Your task to perform on an android device: check battery use Image 0: 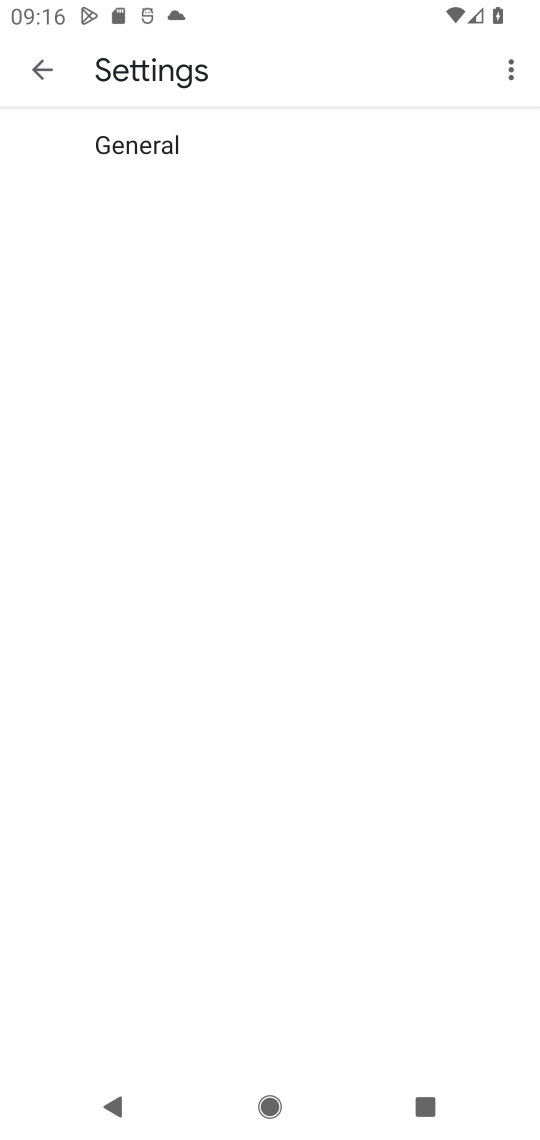
Step 0: press home button
Your task to perform on an android device: check battery use Image 1: 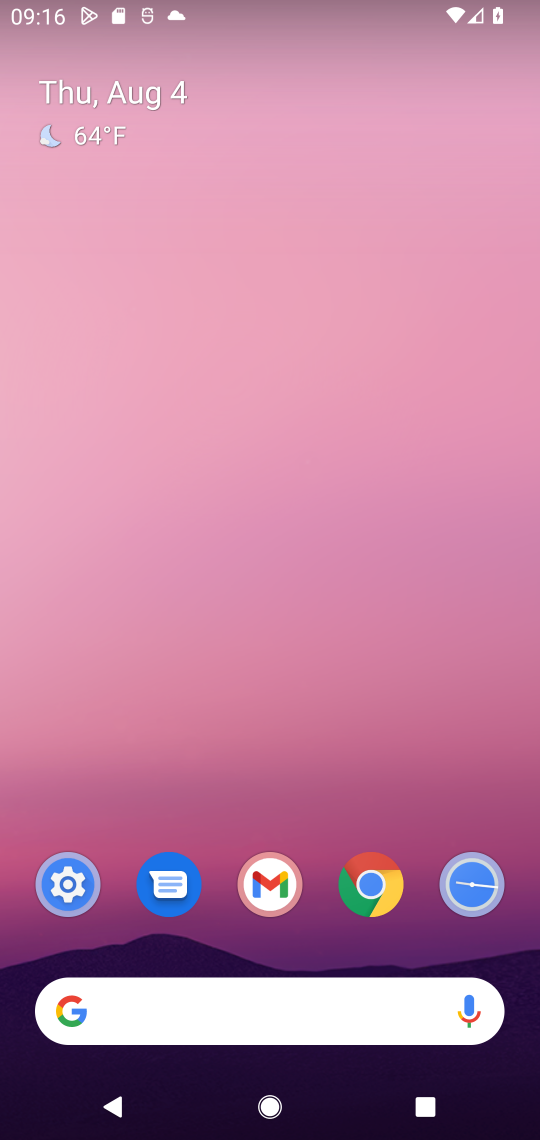
Step 1: click (67, 878)
Your task to perform on an android device: check battery use Image 2: 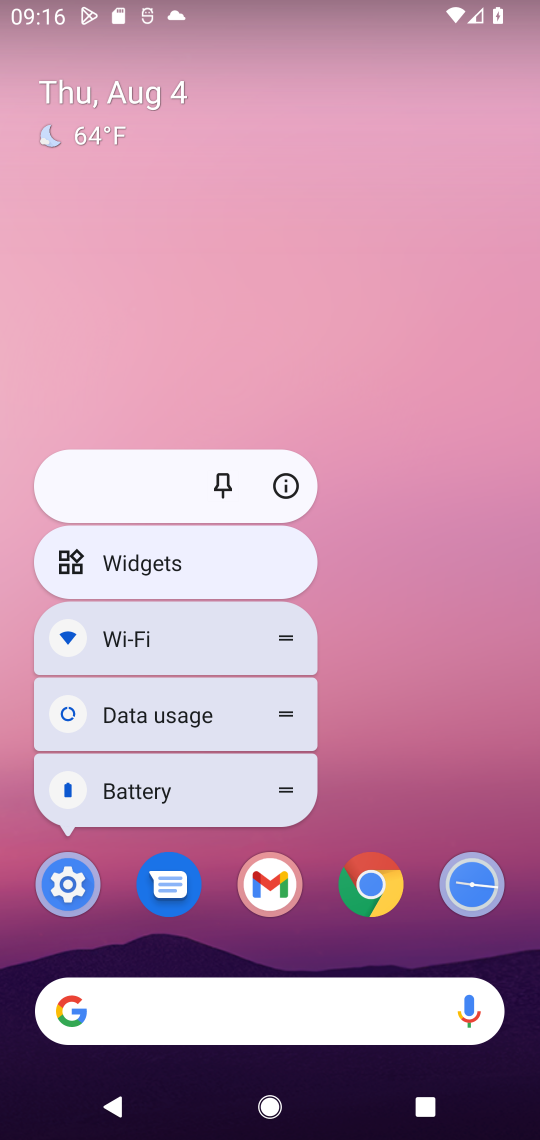
Step 2: click (67, 872)
Your task to perform on an android device: check battery use Image 3: 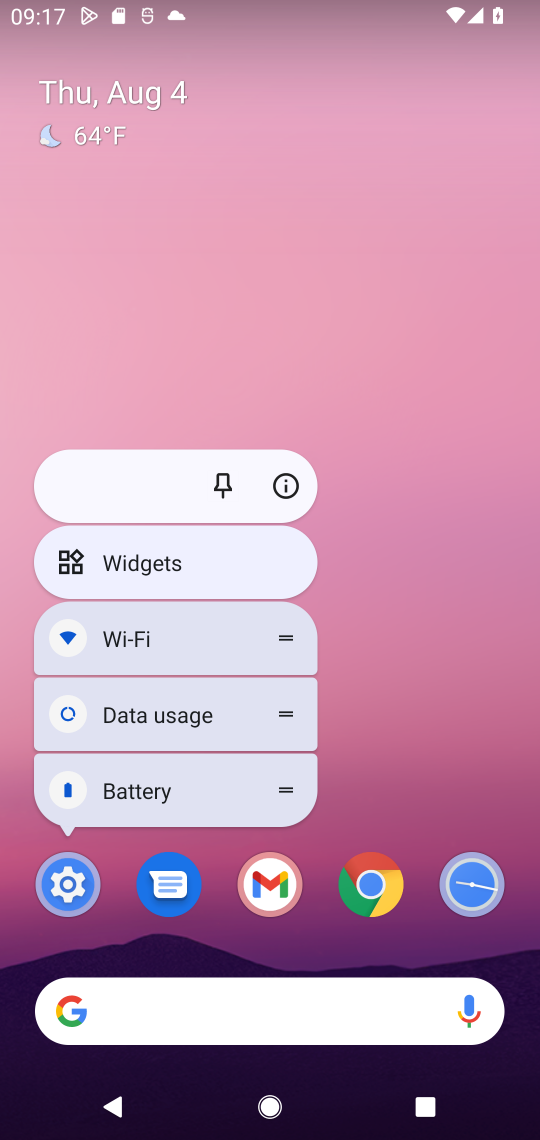
Step 3: click (55, 888)
Your task to perform on an android device: check battery use Image 4: 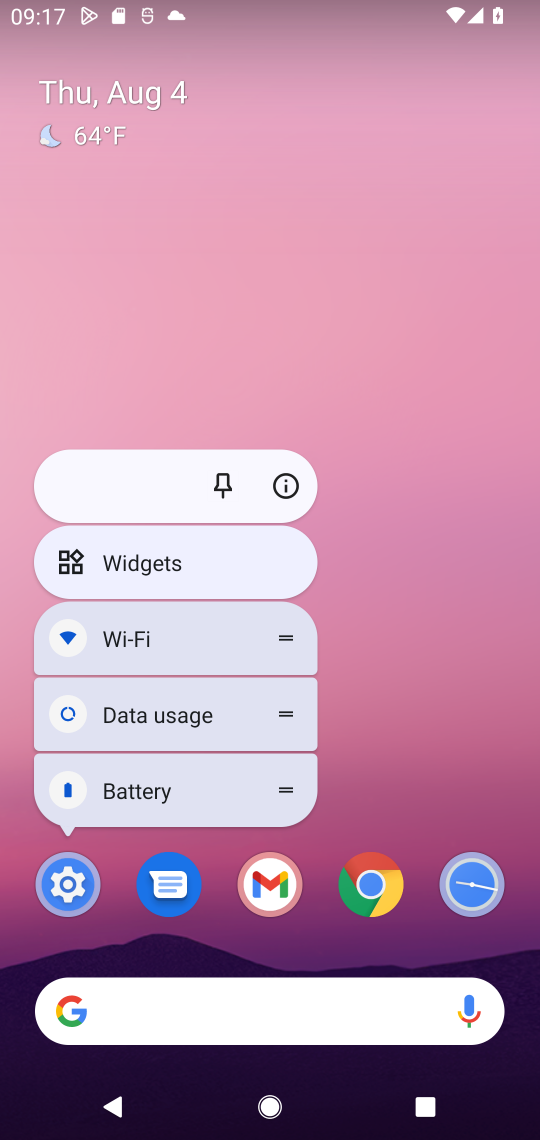
Step 4: click (59, 875)
Your task to perform on an android device: check battery use Image 5: 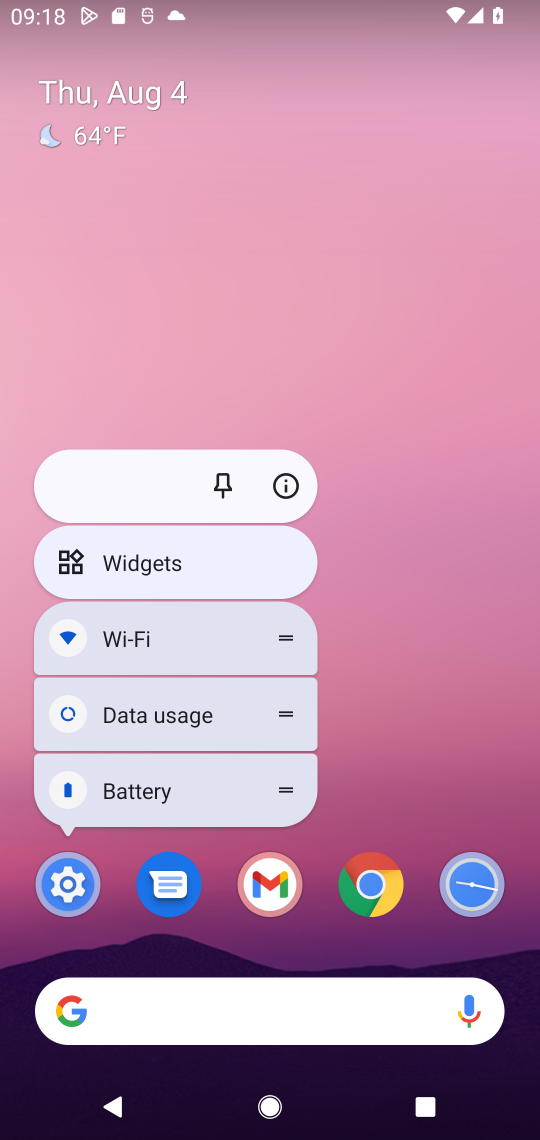
Step 5: click (57, 900)
Your task to perform on an android device: check battery use Image 6: 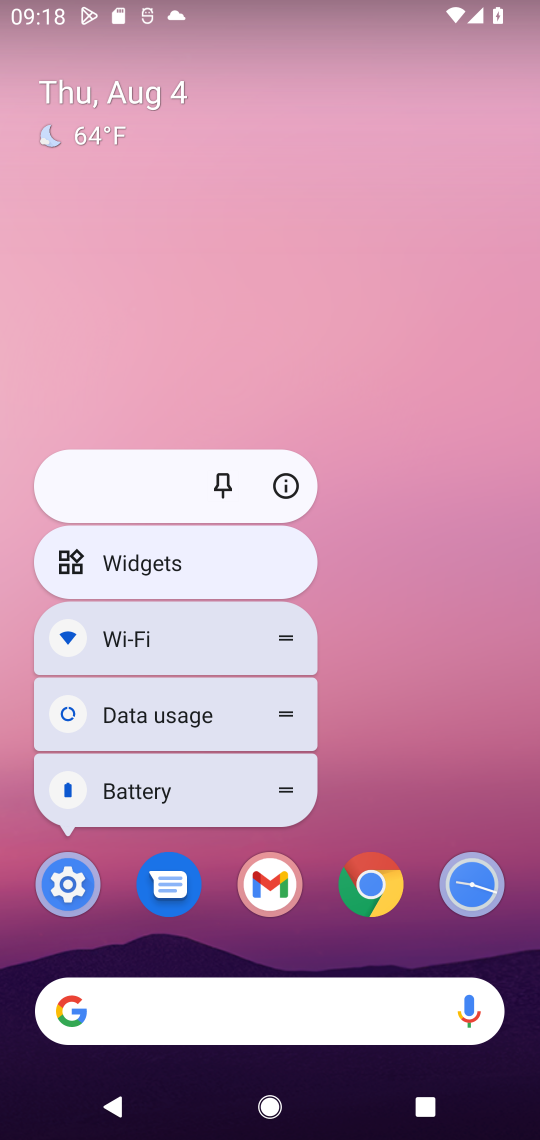
Step 6: click (57, 900)
Your task to perform on an android device: check battery use Image 7: 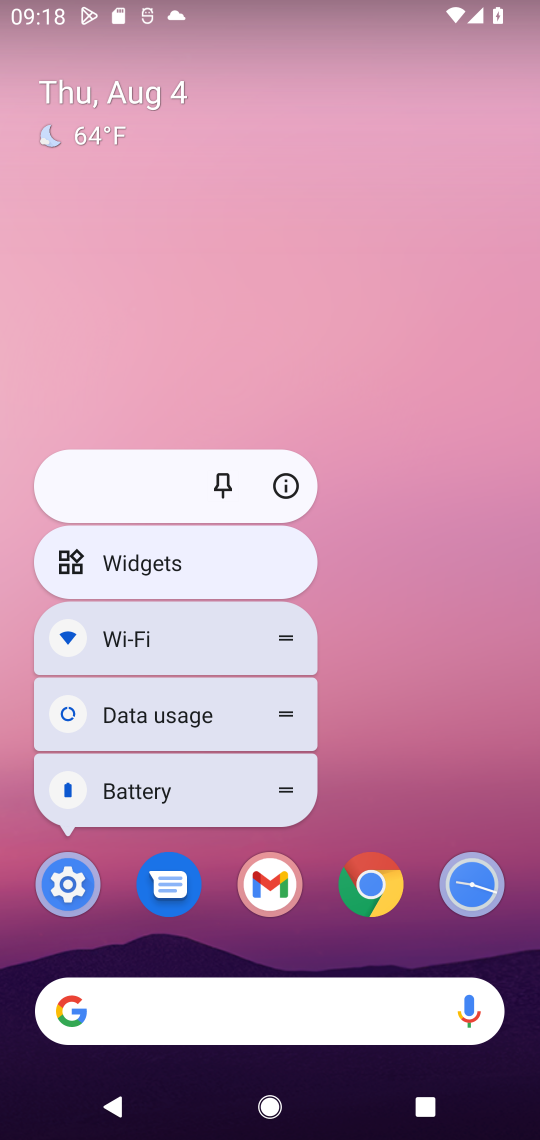
Step 7: click (57, 900)
Your task to perform on an android device: check battery use Image 8: 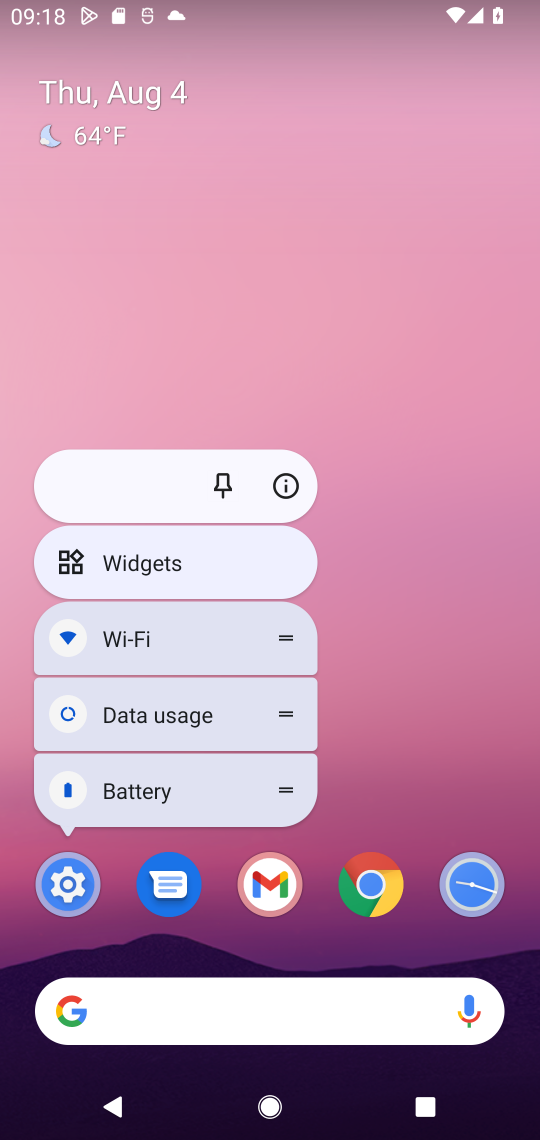
Step 8: press home button
Your task to perform on an android device: check battery use Image 9: 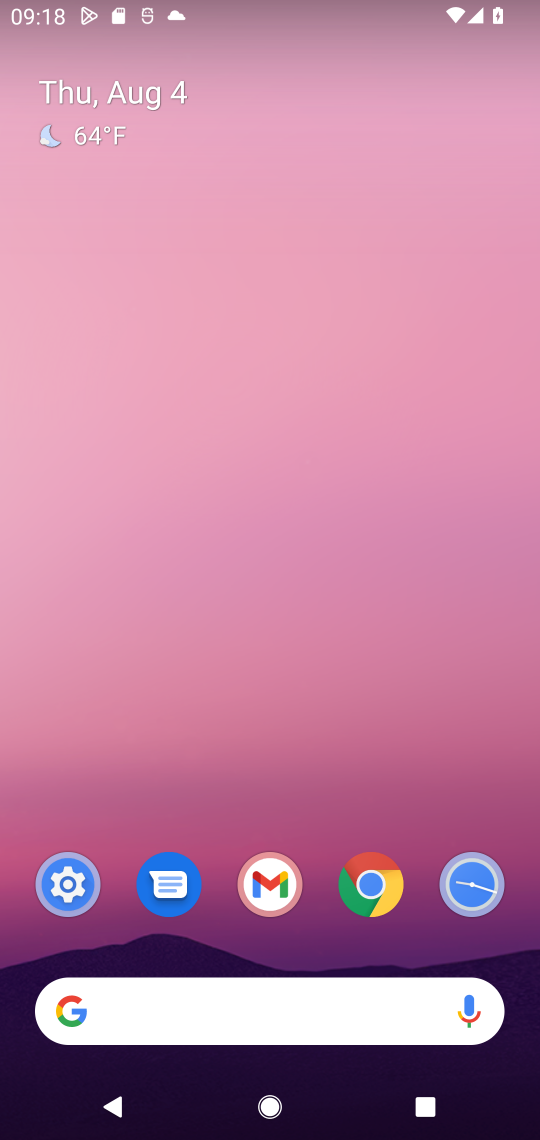
Step 9: drag from (180, 1001) to (161, 7)
Your task to perform on an android device: check battery use Image 10: 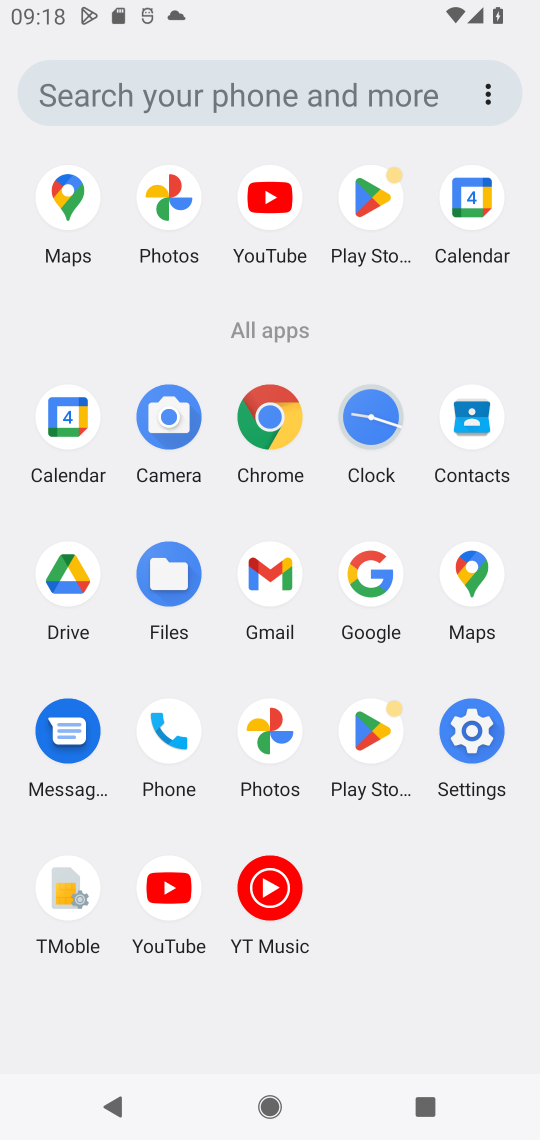
Step 10: click (473, 739)
Your task to perform on an android device: check battery use Image 11: 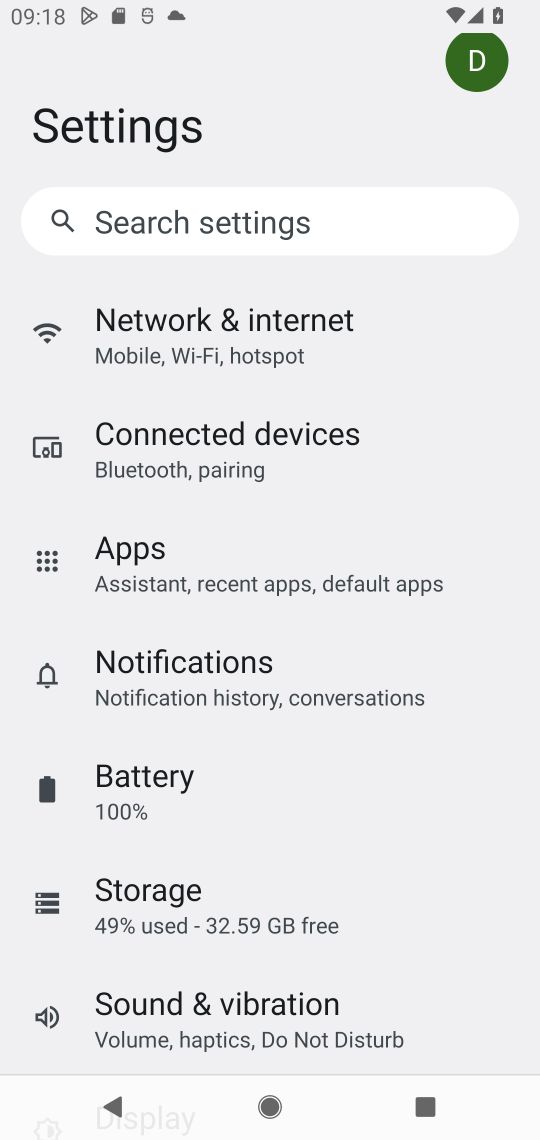
Step 11: click (203, 794)
Your task to perform on an android device: check battery use Image 12: 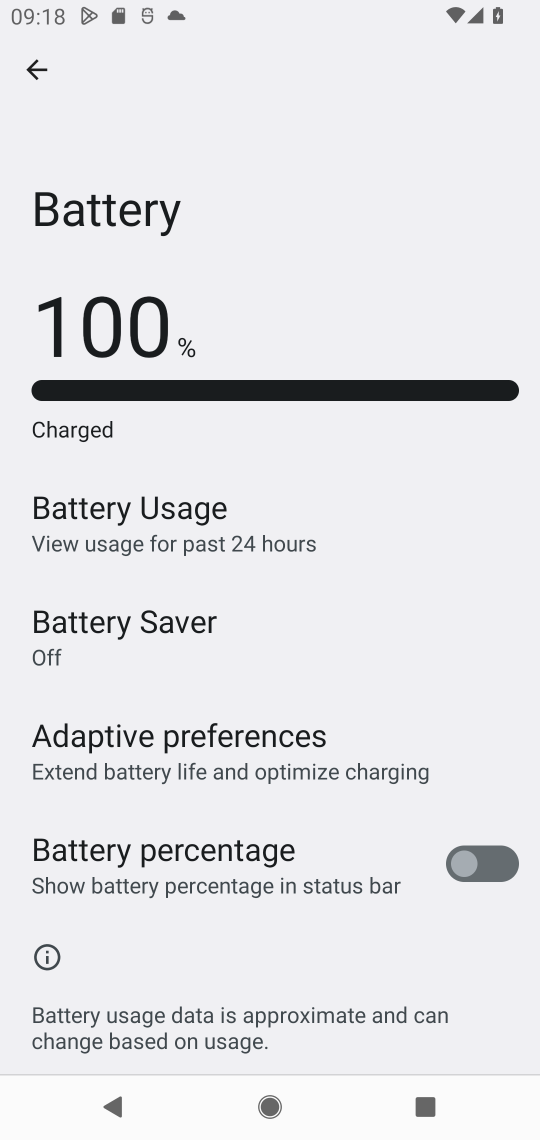
Step 12: click (251, 529)
Your task to perform on an android device: check battery use Image 13: 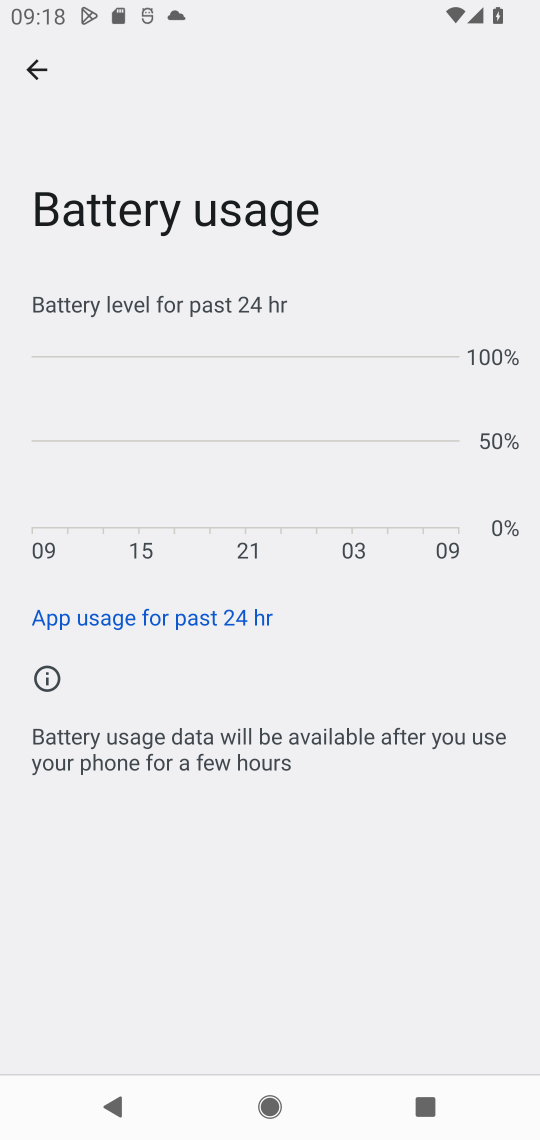
Step 13: task complete